Your task to perform on an android device: Go to CNN.com Image 0: 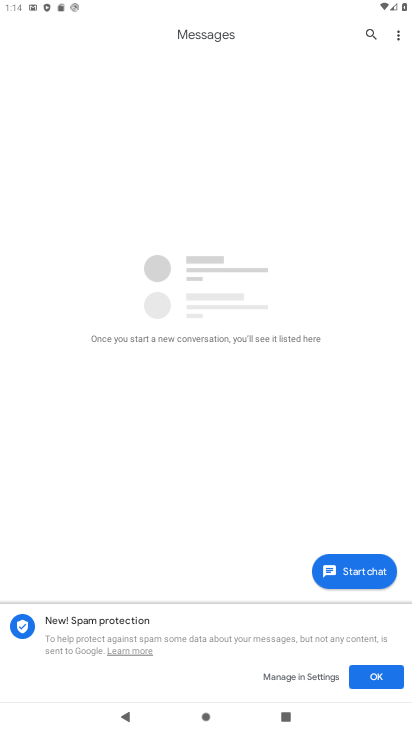
Step 0: press back button
Your task to perform on an android device: Go to CNN.com Image 1: 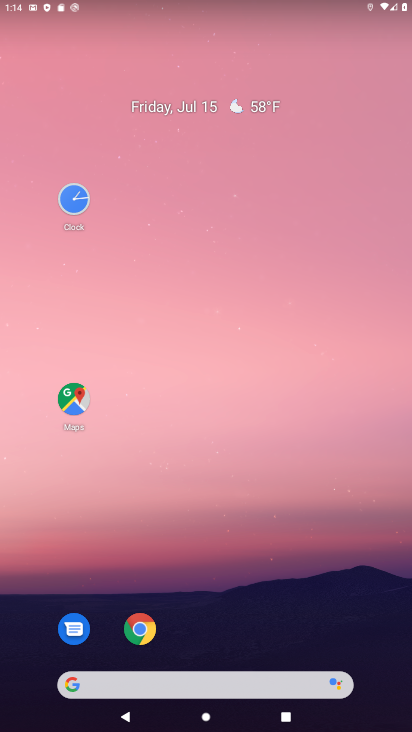
Step 1: click (151, 637)
Your task to perform on an android device: Go to CNN.com Image 2: 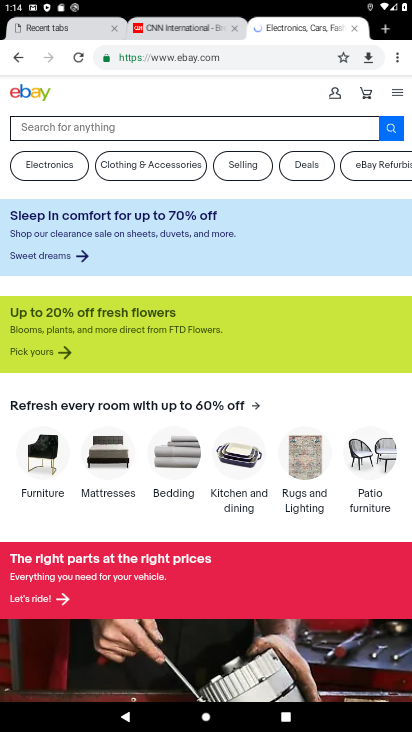
Step 2: click (197, 33)
Your task to perform on an android device: Go to CNN.com Image 3: 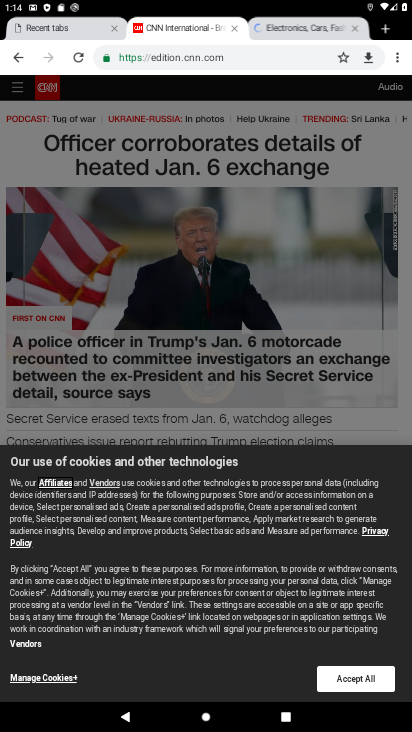
Step 3: task complete